Your task to perform on an android device: Turn off the flashlight Image 0: 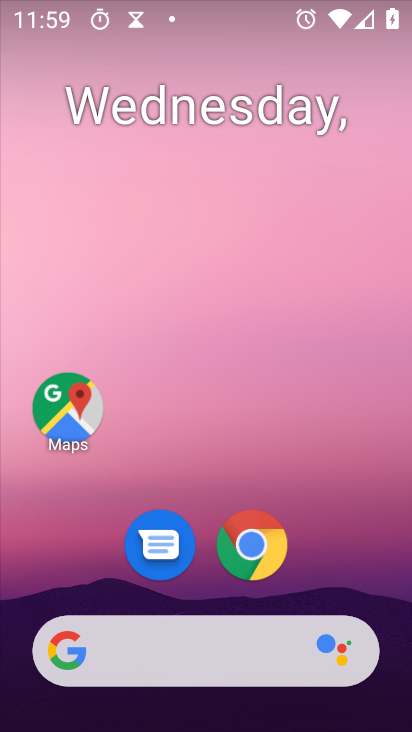
Step 0: press home button
Your task to perform on an android device: Turn off the flashlight Image 1: 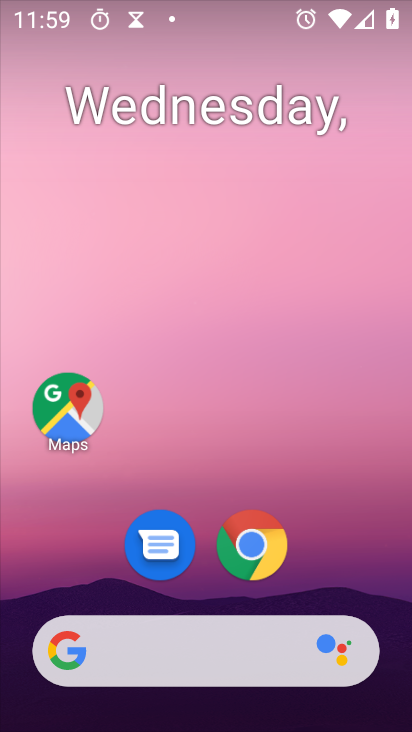
Step 1: task complete